Your task to perform on an android device: toggle airplane mode Image 0: 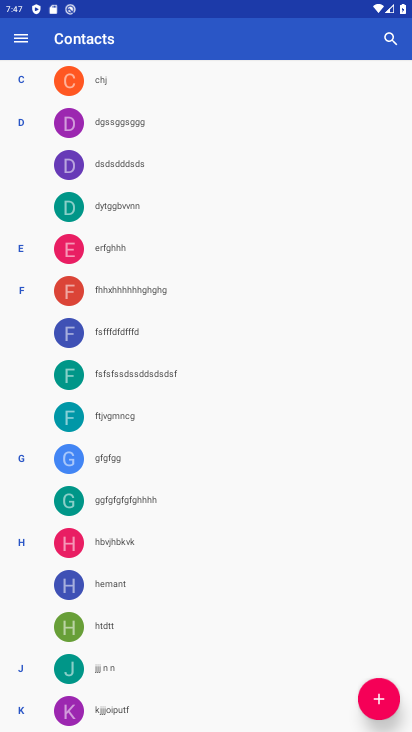
Step 0: press back button
Your task to perform on an android device: toggle airplane mode Image 1: 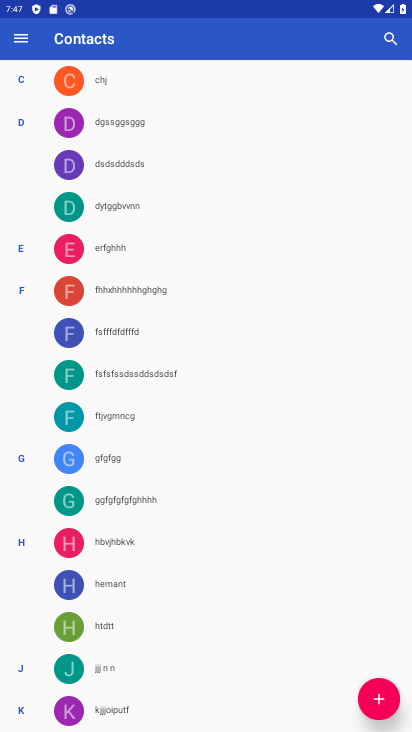
Step 1: press back button
Your task to perform on an android device: toggle airplane mode Image 2: 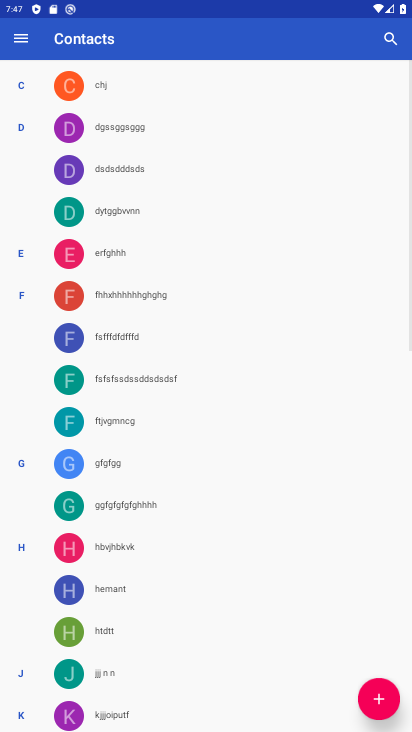
Step 2: press back button
Your task to perform on an android device: toggle airplane mode Image 3: 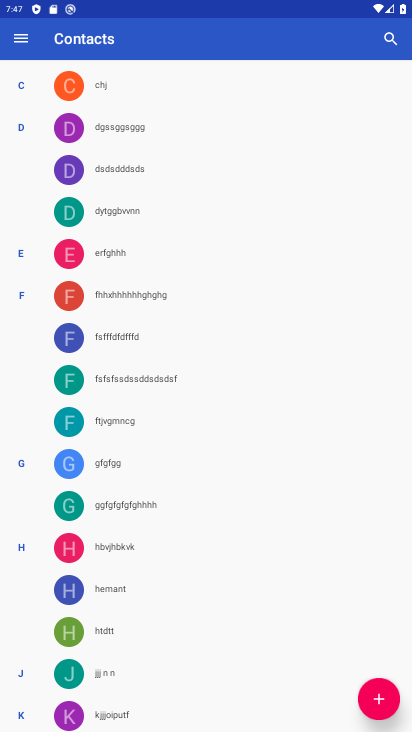
Step 3: press back button
Your task to perform on an android device: toggle airplane mode Image 4: 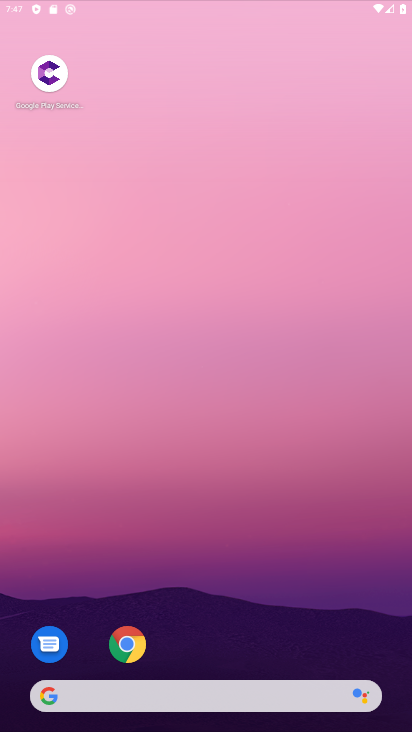
Step 4: press back button
Your task to perform on an android device: toggle airplane mode Image 5: 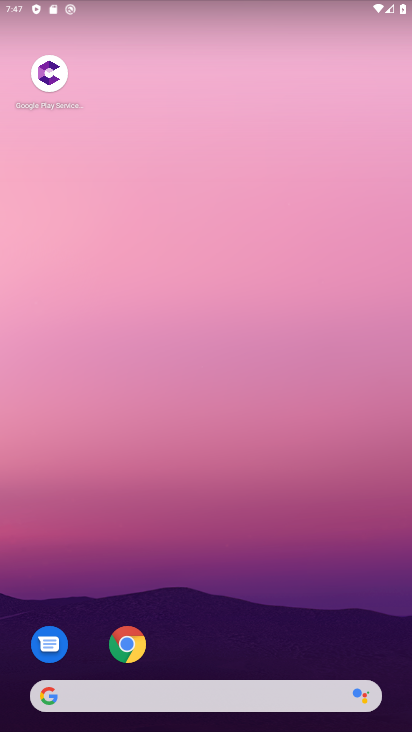
Step 5: drag from (259, 623) to (227, 191)
Your task to perform on an android device: toggle airplane mode Image 6: 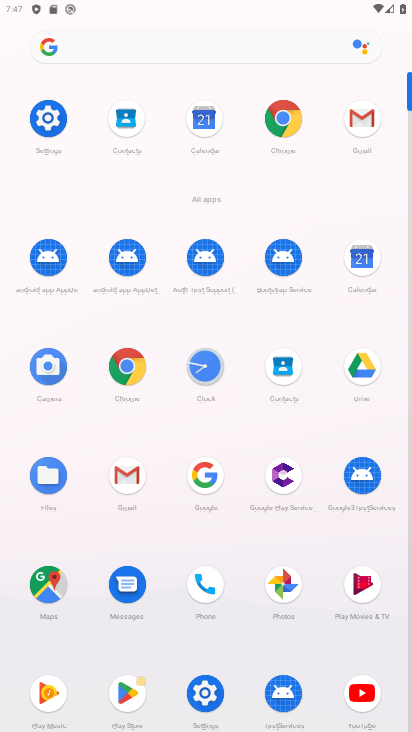
Step 6: click (34, 114)
Your task to perform on an android device: toggle airplane mode Image 7: 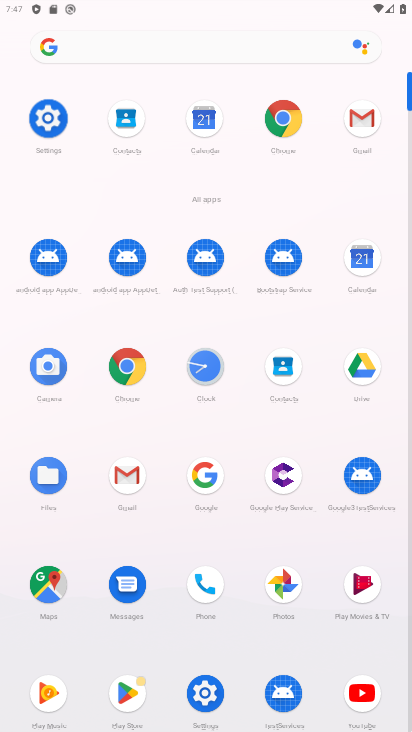
Step 7: click (35, 114)
Your task to perform on an android device: toggle airplane mode Image 8: 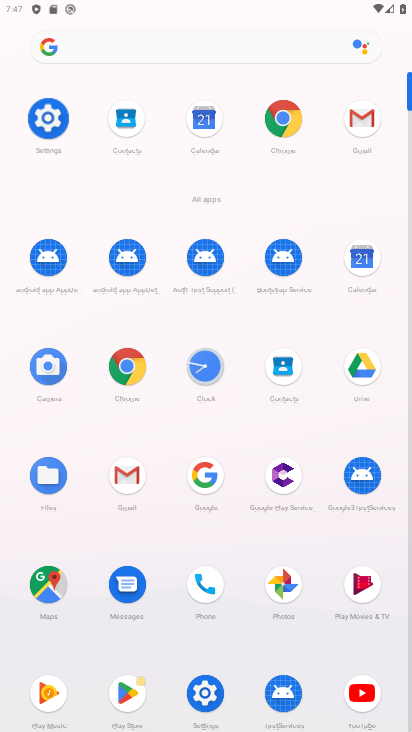
Step 8: click (35, 116)
Your task to perform on an android device: toggle airplane mode Image 9: 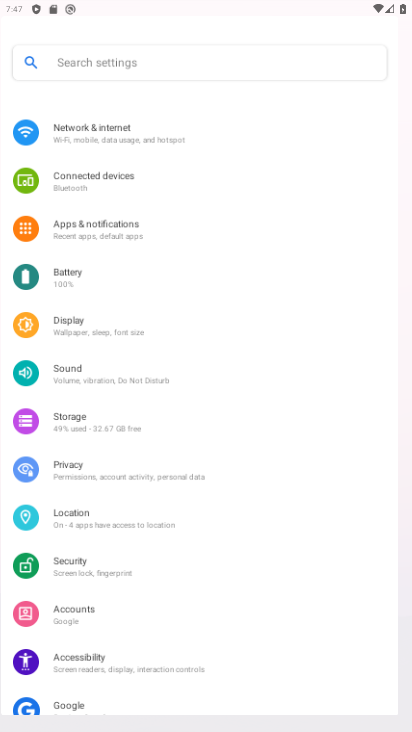
Step 9: click (35, 118)
Your task to perform on an android device: toggle airplane mode Image 10: 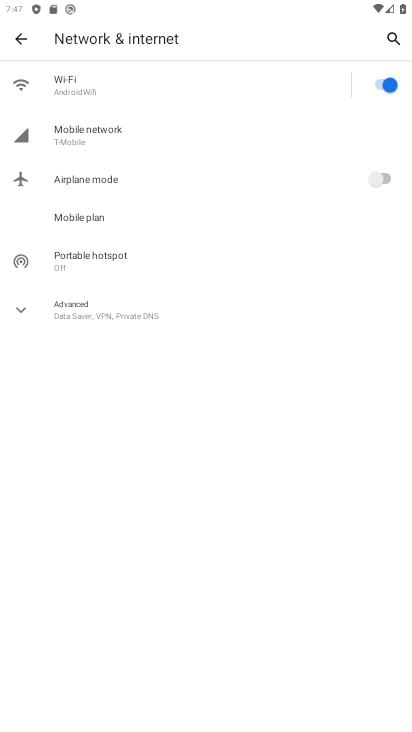
Step 10: click (384, 173)
Your task to perform on an android device: toggle airplane mode Image 11: 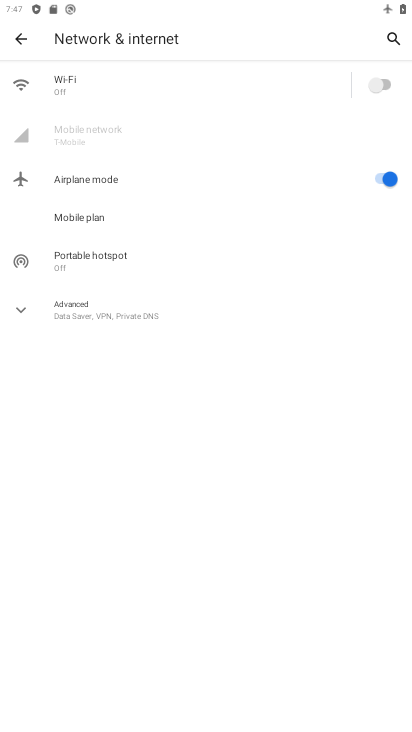
Step 11: task complete